Your task to perform on an android device: What is the recent news? Image 0: 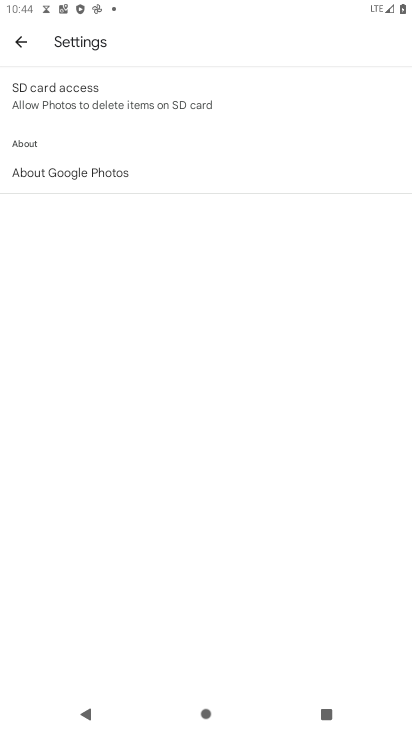
Step 0: press home button
Your task to perform on an android device: What is the recent news? Image 1: 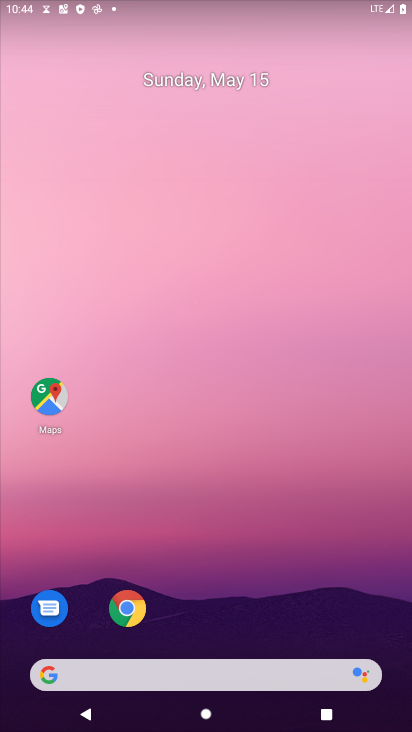
Step 1: drag from (272, 564) to (189, 29)
Your task to perform on an android device: What is the recent news? Image 2: 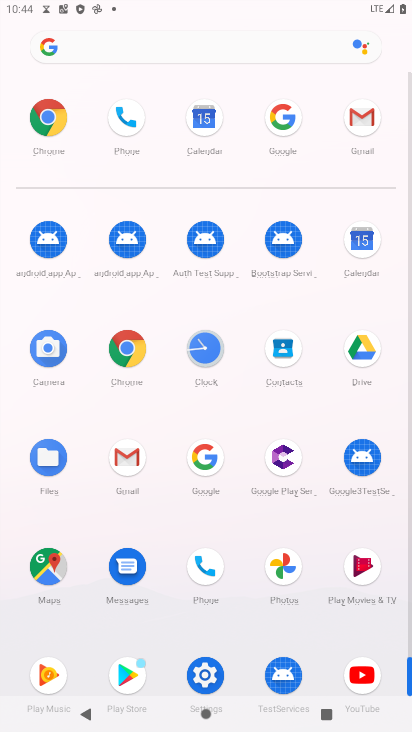
Step 2: click (49, 117)
Your task to perform on an android device: What is the recent news? Image 3: 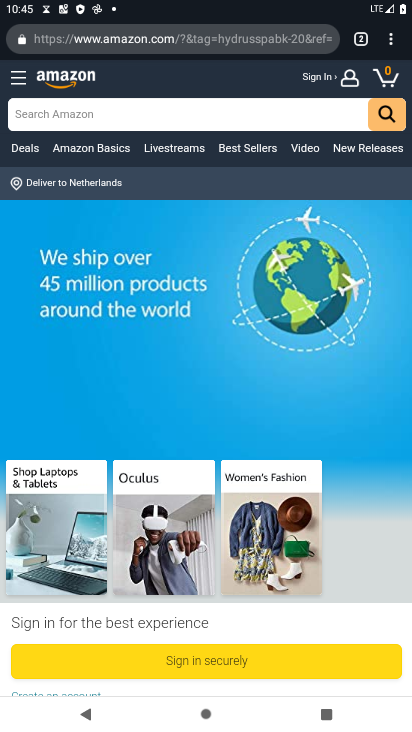
Step 3: drag from (395, 37) to (214, 83)
Your task to perform on an android device: What is the recent news? Image 4: 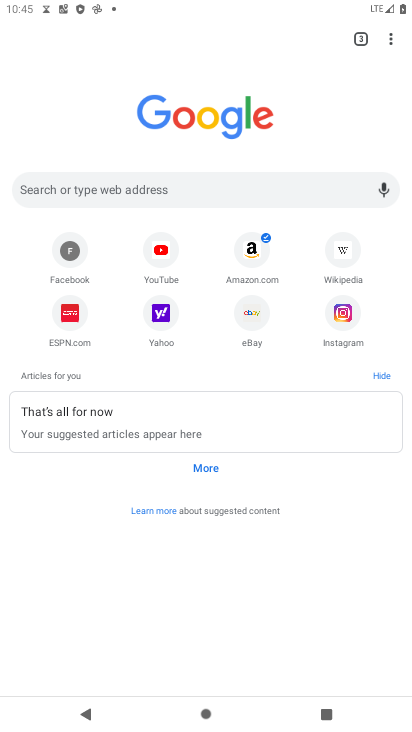
Step 4: click (202, 472)
Your task to perform on an android device: What is the recent news? Image 5: 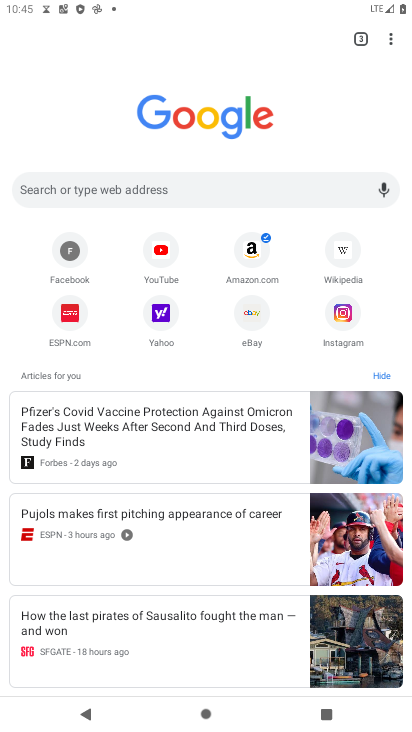
Step 5: task complete